Your task to perform on an android device: Open a new private window in the chrome app Image 0: 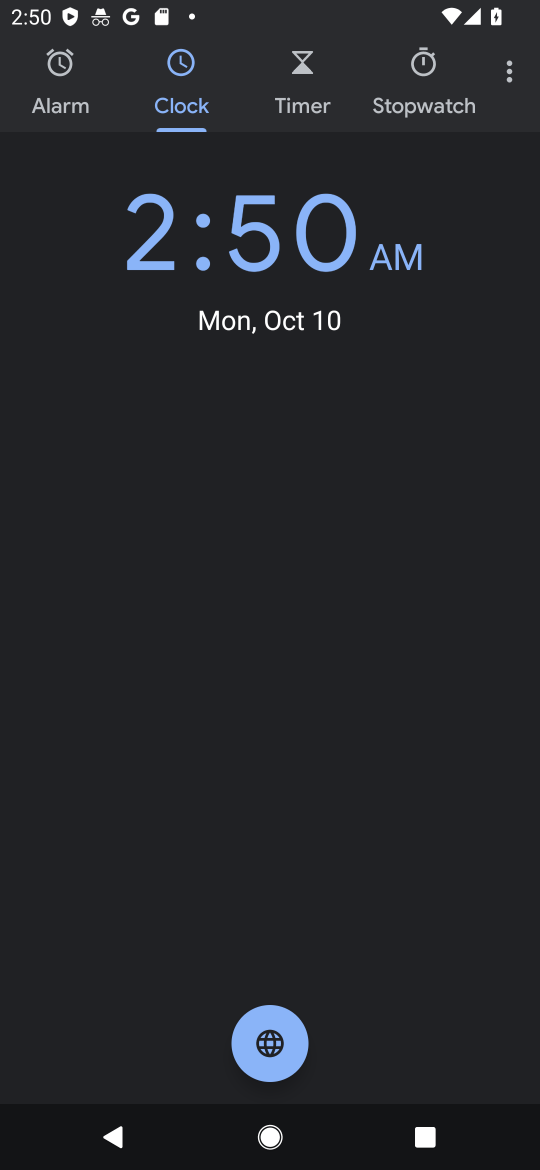
Step 0: press home button
Your task to perform on an android device: Open a new private window in the chrome app Image 1: 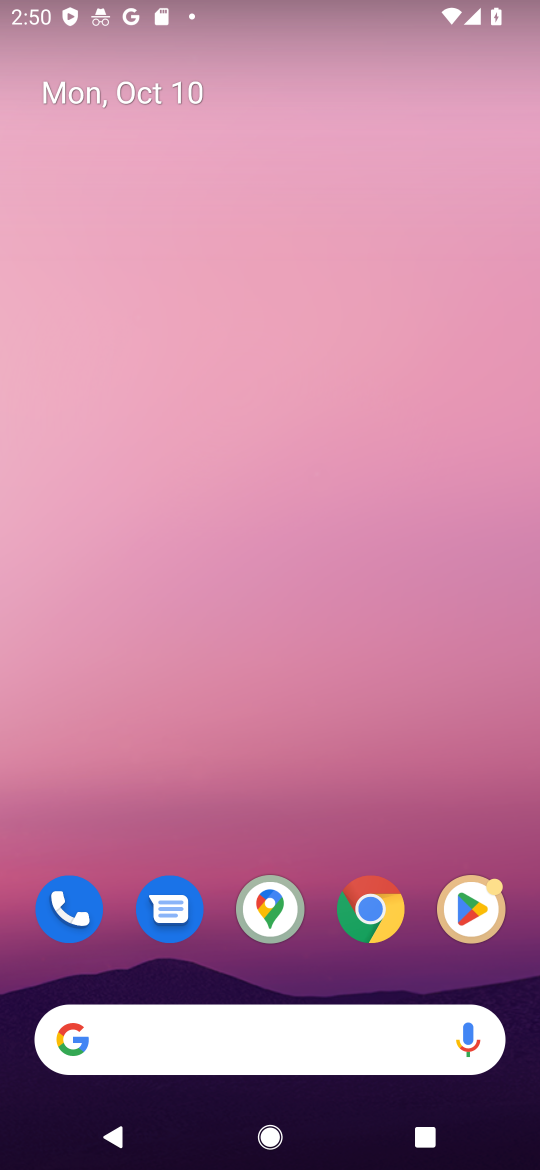
Step 1: click (367, 910)
Your task to perform on an android device: Open a new private window in the chrome app Image 2: 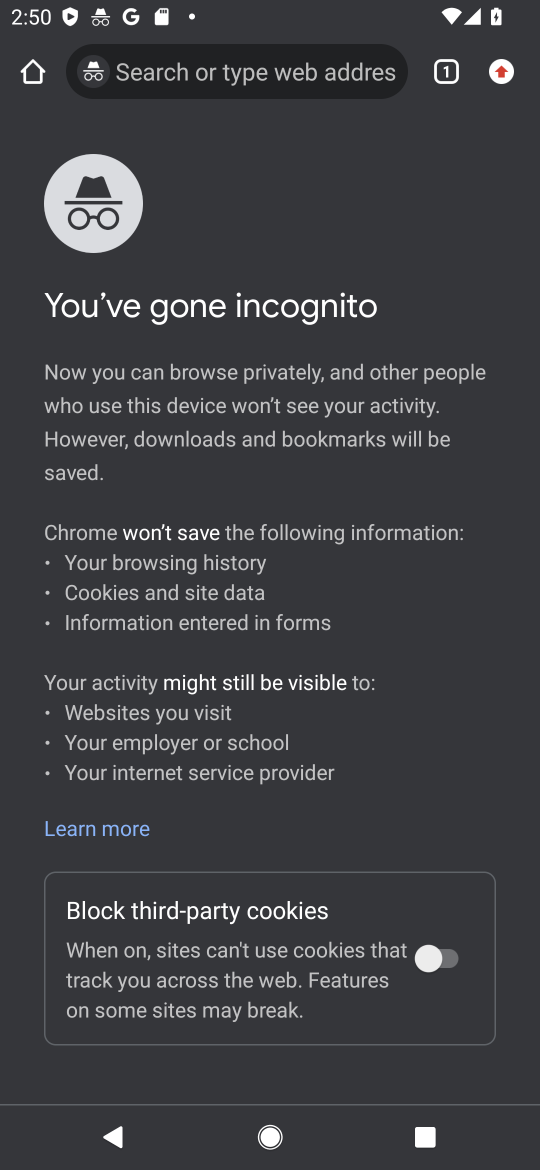
Step 2: click (442, 75)
Your task to perform on an android device: Open a new private window in the chrome app Image 3: 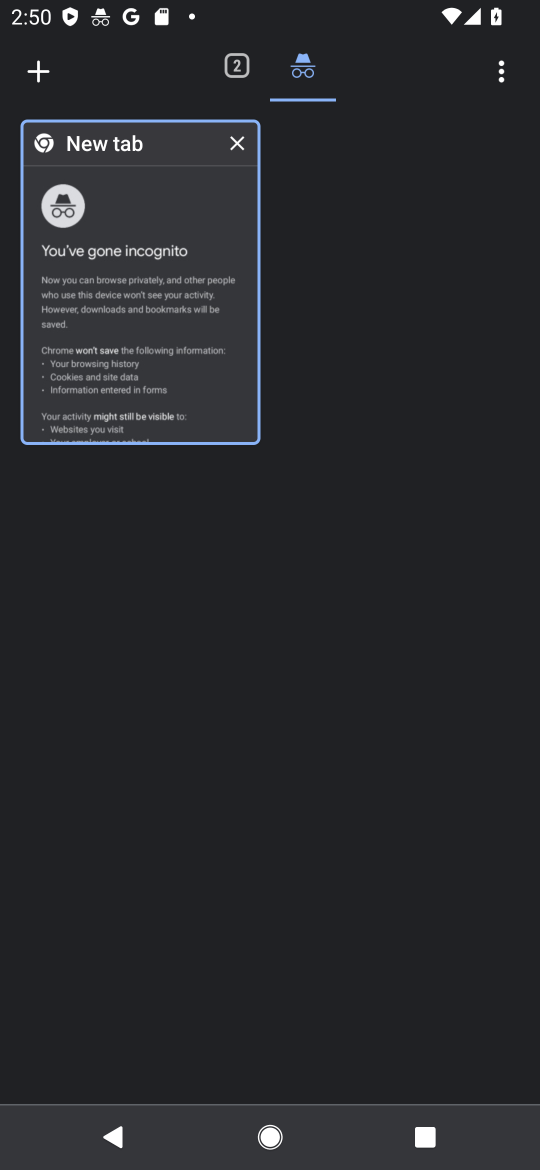
Step 3: click (41, 73)
Your task to perform on an android device: Open a new private window in the chrome app Image 4: 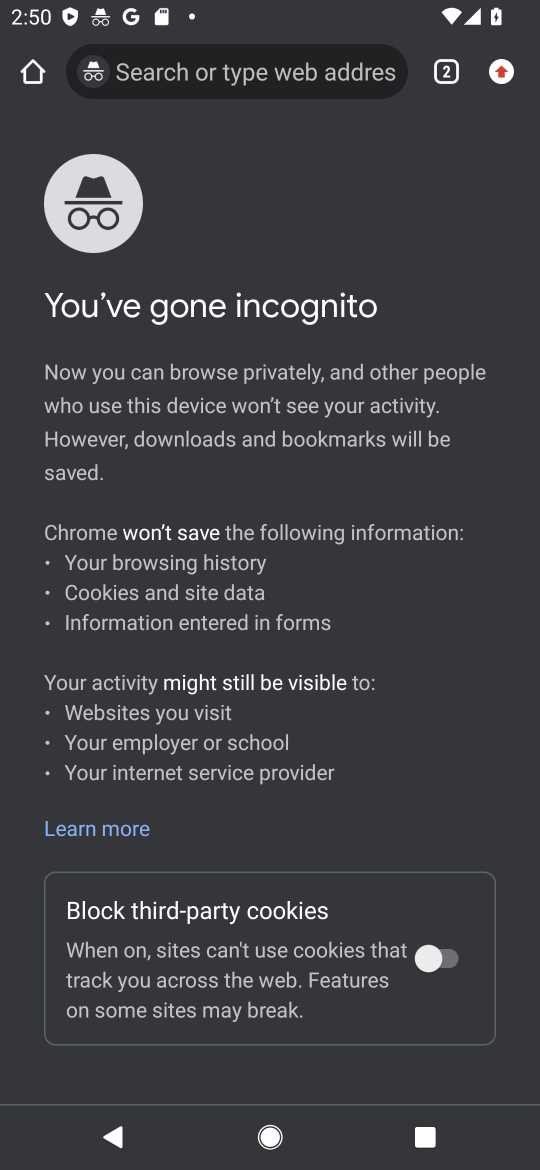
Step 4: task complete